Your task to perform on an android device: Add "sony triple a" to the cart on ebay.com, then select checkout. Image 0: 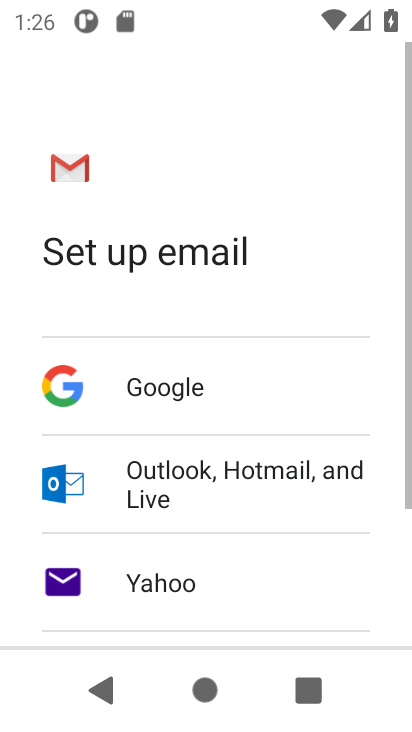
Step 0: press home button
Your task to perform on an android device: Add "sony triple a" to the cart on ebay.com, then select checkout. Image 1: 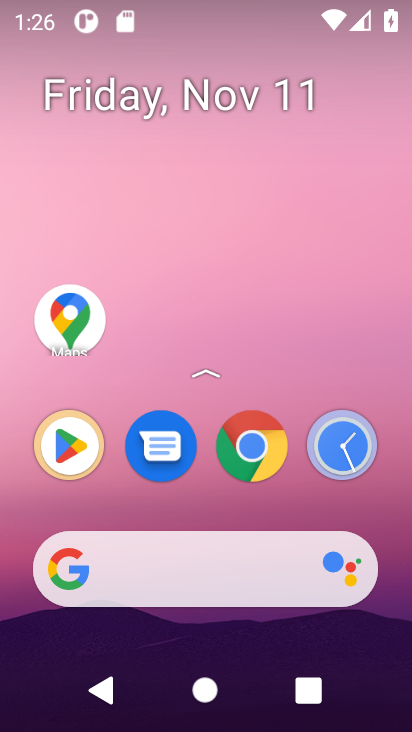
Step 1: click (257, 451)
Your task to perform on an android device: Add "sony triple a" to the cart on ebay.com, then select checkout. Image 2: 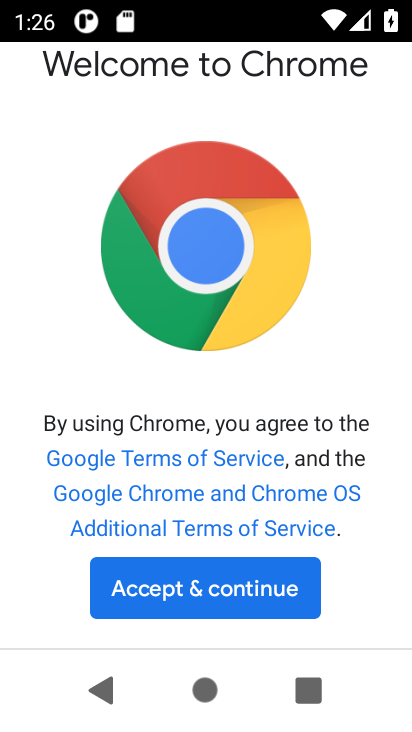
Step 2: click (246, 595)
Your task to perform on an android device: Add "sony triple a" to the cart on ebay.com, then select checkout. Image 3: 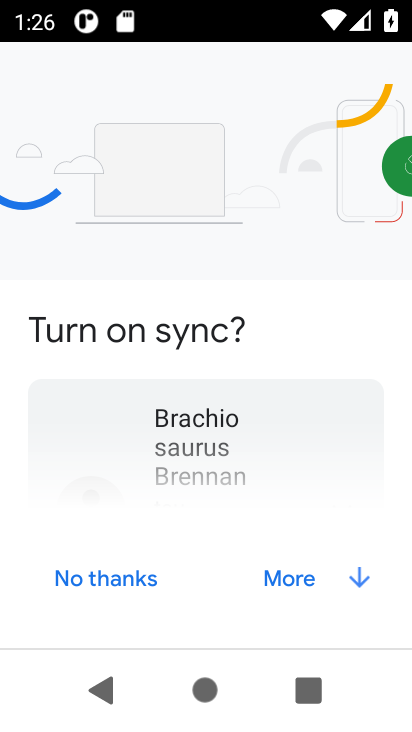
Step 3: click (287, 582)
Your task to perform on an android device: Add "sony triple a" to the cart on ebay.com, then select checkout. Image 4: 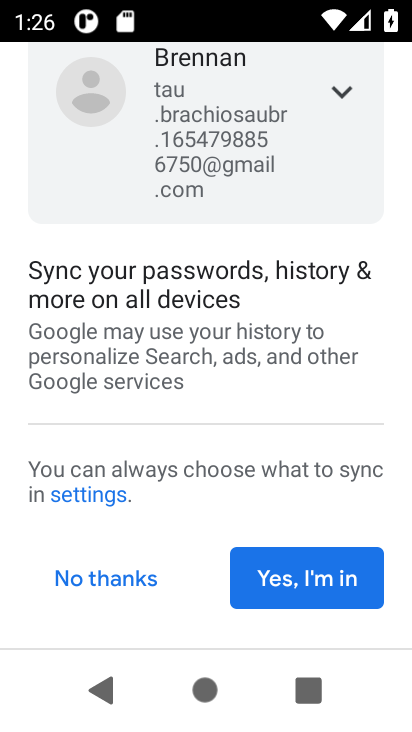
Step 4: click (287, 582)
Your task to perform on an android device: Add "sony triple a" to the cart on ebay.com, then select checkout. Image 5: 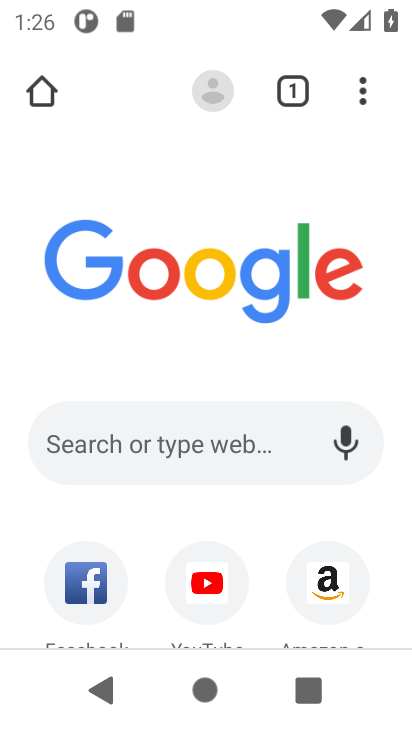
Step 5: click (270, 438)
Your task to perform on an android device: Add "sony triple a" to the cart on ebay.com, then select checkout. Image 6: 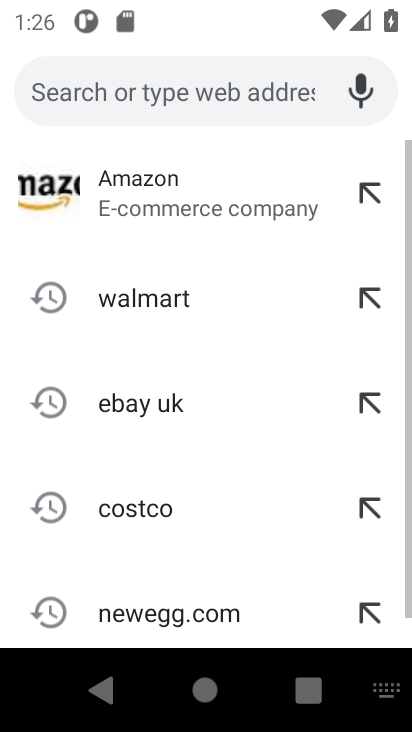
Step 6: type "ebay.com"
Your task to perform on an android device: Add "sony triple a" to the cart on ebay.com, then select checkout. Image 7: 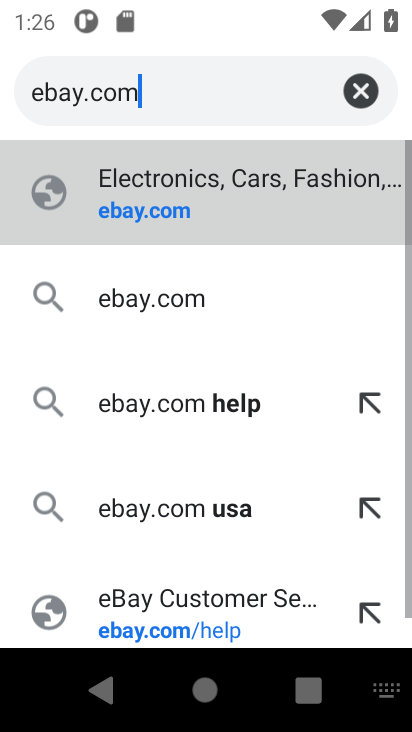
Step 7: press enter
Your task to perform on an android device: Add "sony triple a" to the cart on ebay.com, then select checkout. Image 8: 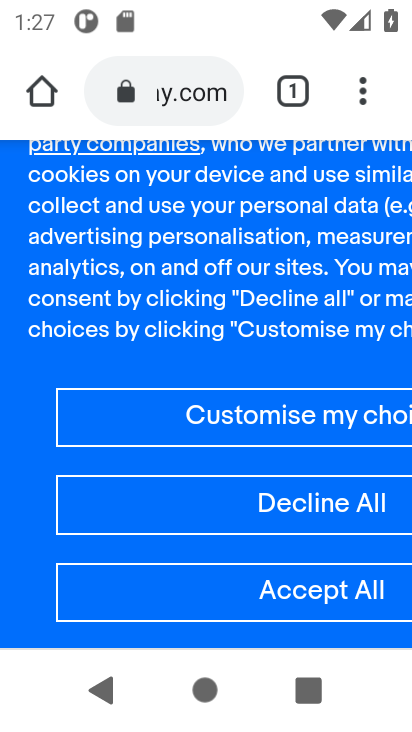
Step 8: click (344, 586)
Your task to perform on an android device: Add "sony triple a" to the cart on ebay.com, then select checkout. Image 9: 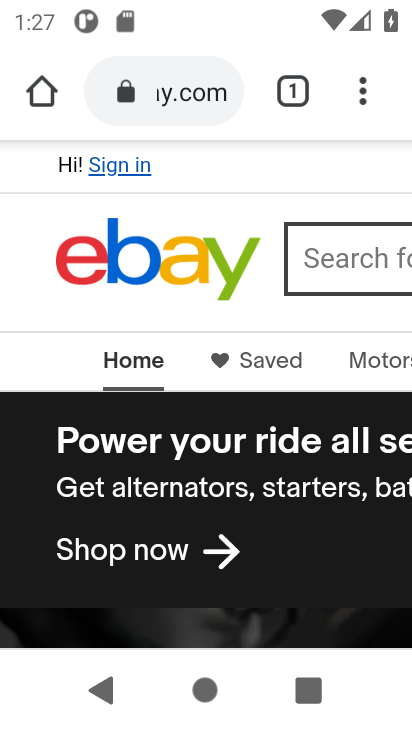
Step 9: click (342, 270)
Your task to perform on an android device: Add "sony triple a" to the cart on ebay.com, then select checkout. Image 10: 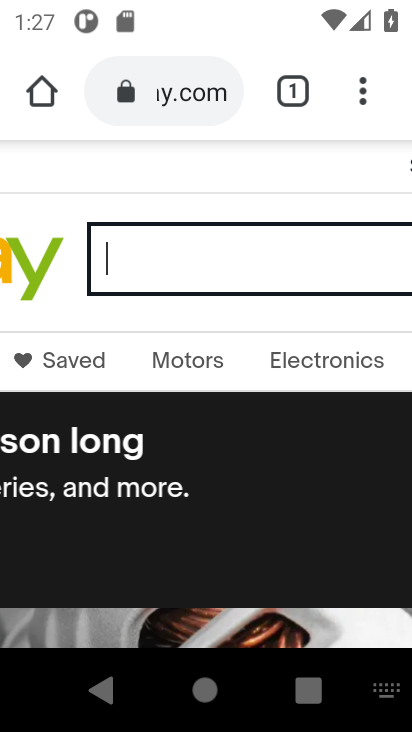
Step 10: press enter
Your task to perform on an android device: Add "sony triple a" to the cart on ebay.com, then select checkout. Image 11: 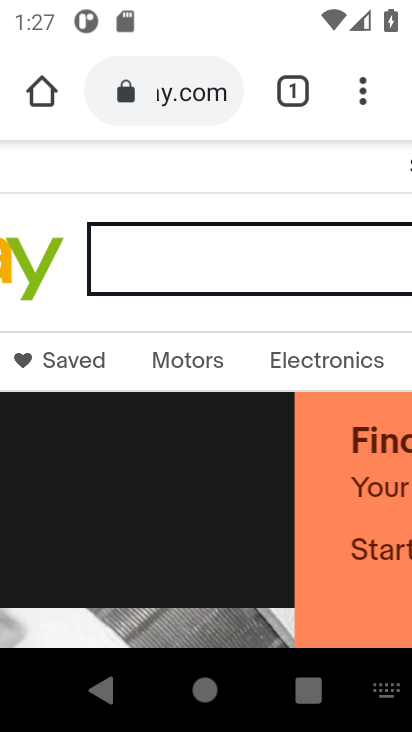
Step 11: type "sony triple a"
Your task to perform on an android device: Add "sony triple a" to the cart on ebay.com, then select checkout. Image 12: 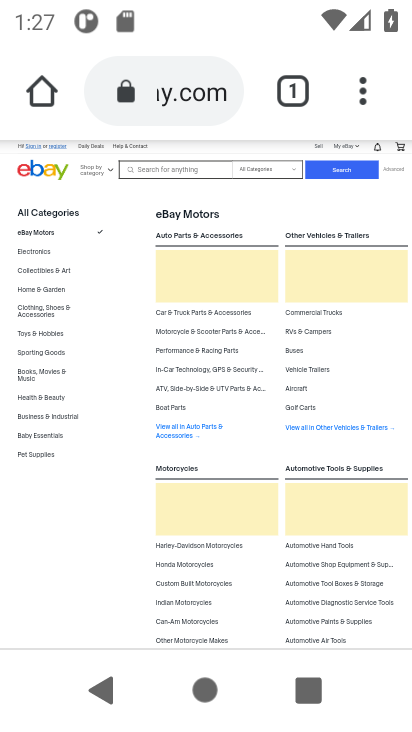
Step 12: click (176, 167)
Your task to perform on an android device: Add "sony triple a" to the cart on ebay.com, then select checkout. Image 13: 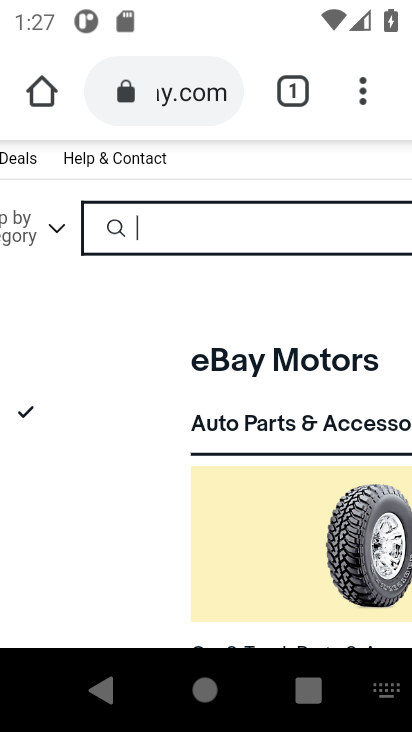
Step 13: type "sony triple a"
Your task to perform on an android device: Add "sony triple a" to the cart on ebay.com, then select checkout. Image 14: 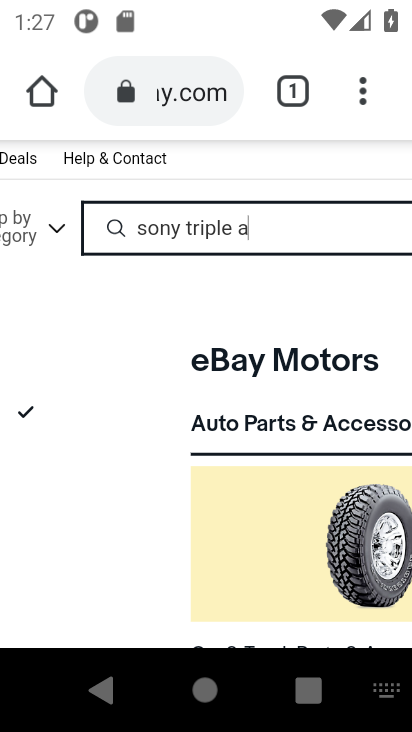
Step 14: press enter
Your task to perform on an android device: Add "sony triple a" to the cart on ebay.com, then select checkout. Image 15: 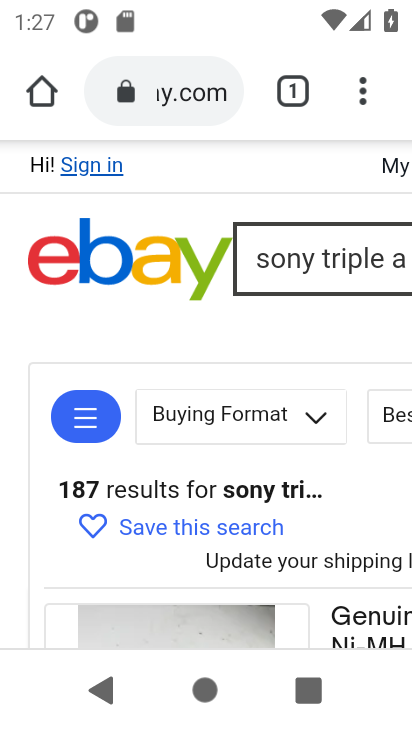
Step 15: drag from (324, 474) to (272, 187)
Your task to perform on an android device: Add "sony triple a" to the cart on ebay.com, then select checkout. Image 16: 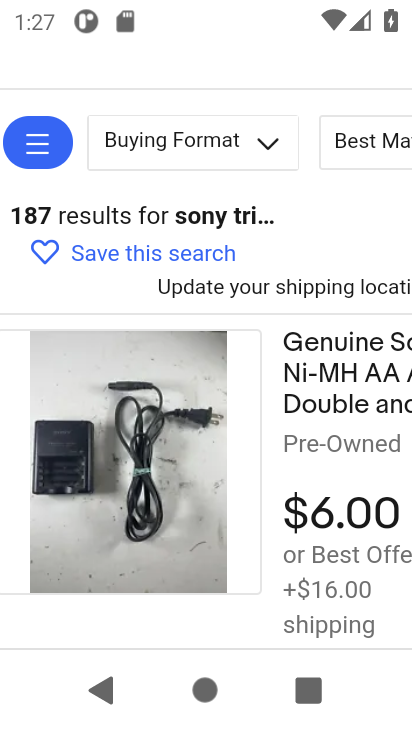
Step 16: drag from (330, 439) to (367, 202)
Your task to perform on an android device: Add "sony triple a" to the cart on ebay.com, then select checkout. Image 17: 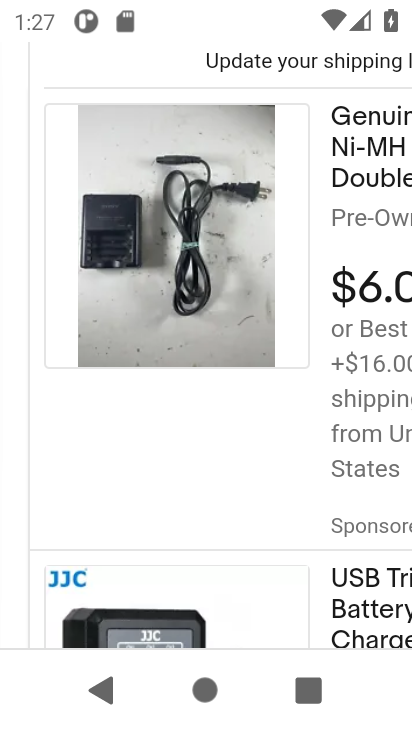
Step 17: drag from (239, 412) to (75, 381)
Your task to perform on an android device: Add "sony triple a" to the cart on ebay.com, then select checkout. Image 18: 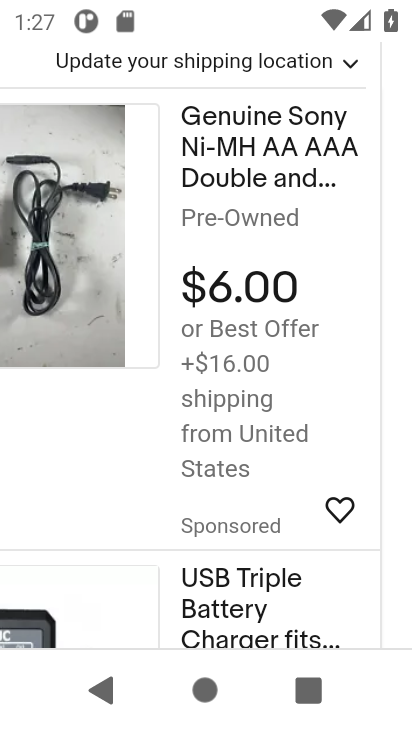
Step 18: click (63, 198)
Your task to perform on an android device: Add "sony triple a" to the cart on ebay.com, then select checkout. Image 19: 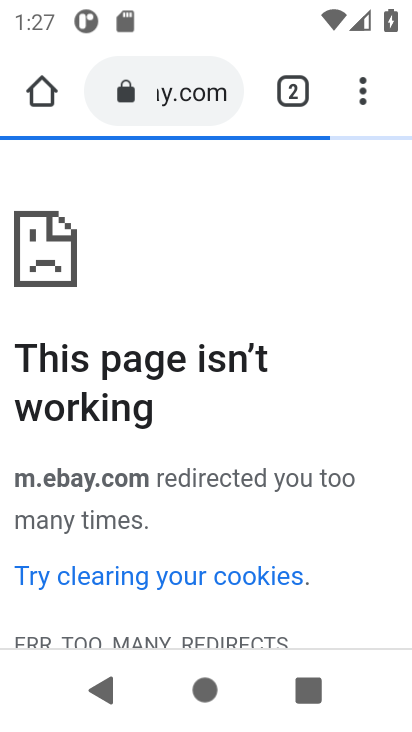
Step 19: press back button
Your task to perform on an android device: Add "sony triple a" to the cart on ebay.com, then select checkout. Image 20: 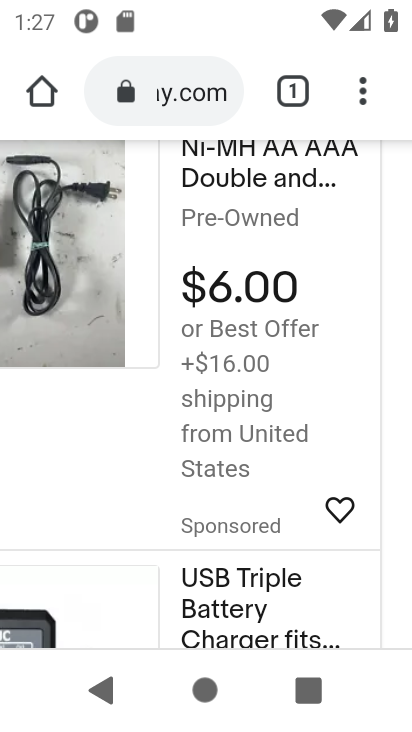
Step 20: drag from (176, 443) to (358, 118)
Your task to perform on an android device: Add "sony triple a" to the cart on ebay.com, then select checkout. Image 21: 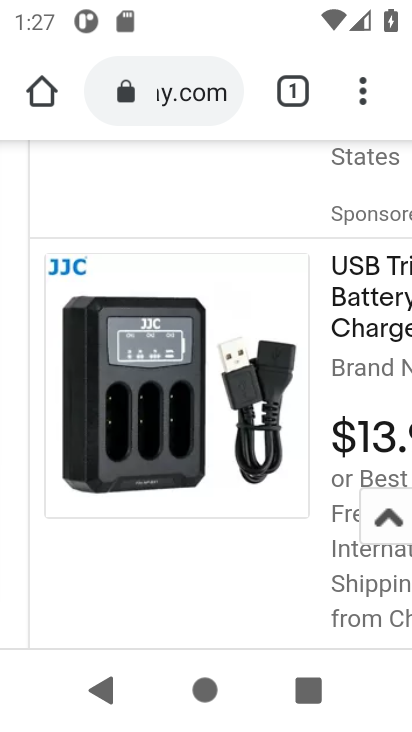
Step 21: click (163, 393)
Your task to perform on an android device: Add "sony triple a" to the cart on ebay.com, then select checkout. Image 22: 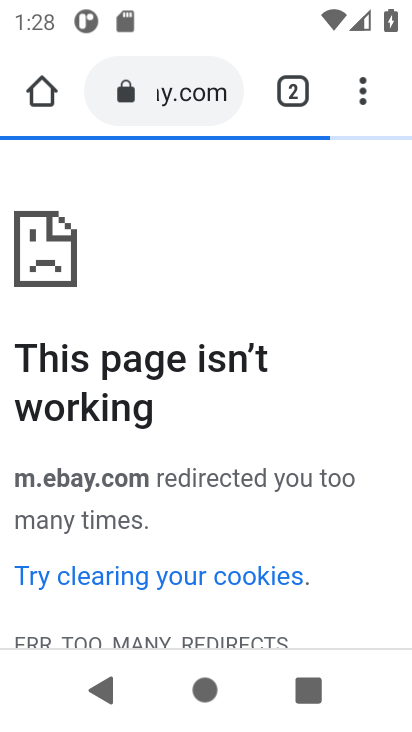
Step 22: task complete